Your task to perform on an android device: check data usage Image 0: 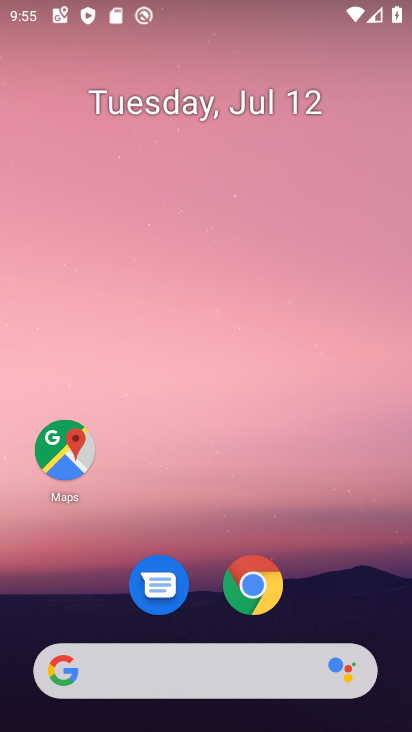
Step 0: drag from (202, 642) to (309, 7)
Your task to perform on an android device: check data usage Image 1: 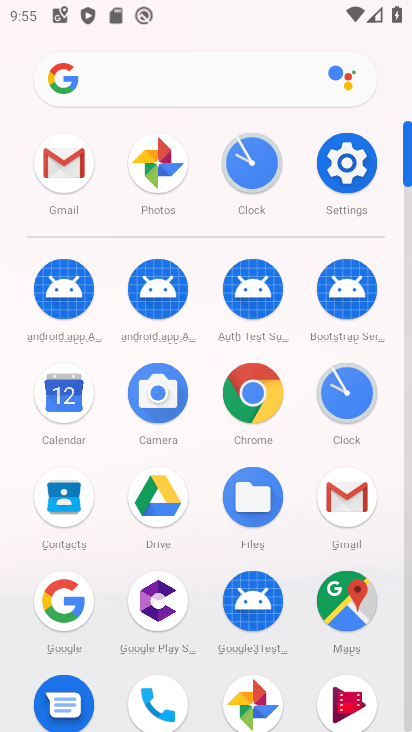
Step 1: click (348, 164)
Your task to perform on an android device: check data usage Image 2: 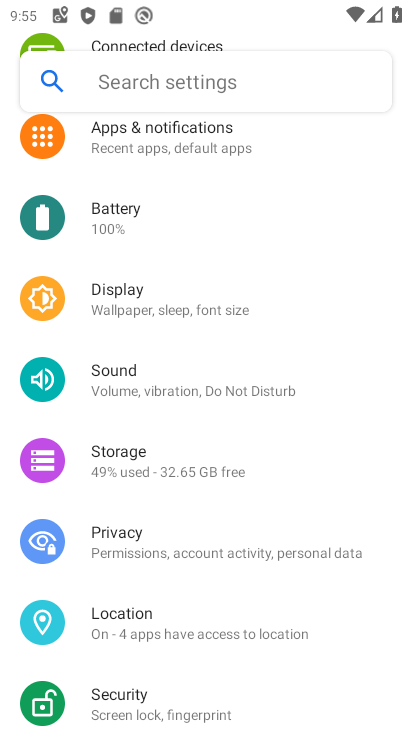
Step 2: drag from (333, 181) to (197, 648)
Your task to perform on an android device: check data usage Image 3: 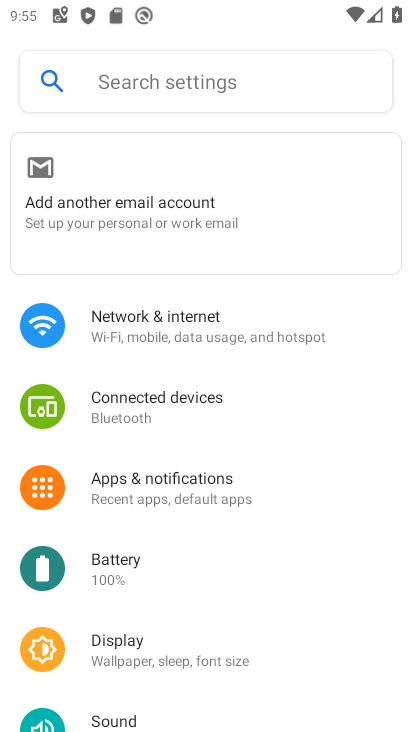
Step 3: click (192, 328)
Your task to perform on an android device: check data usage Image 4: 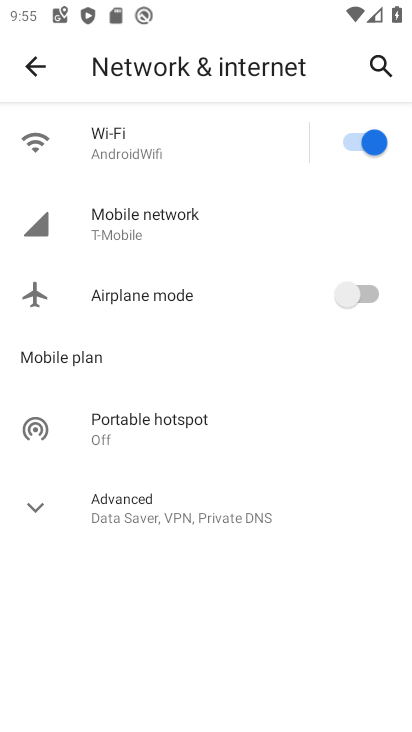
Step 4: click (158, 149)
Your task to perform on an android device: check data usage Image 5: 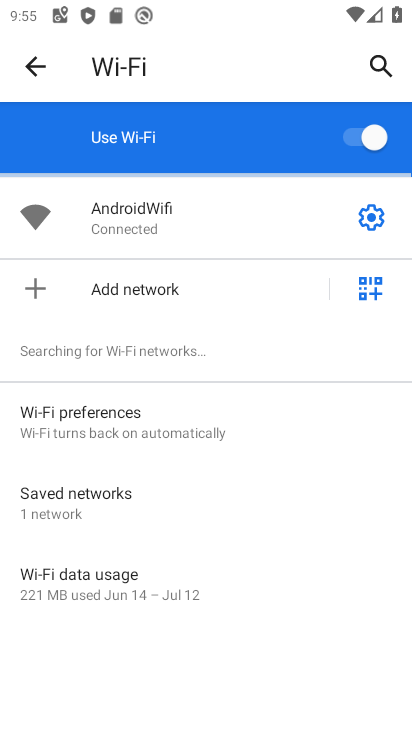
Step 5: click (128, 580)
Your task to perform on an android device: check data usage Image 6: 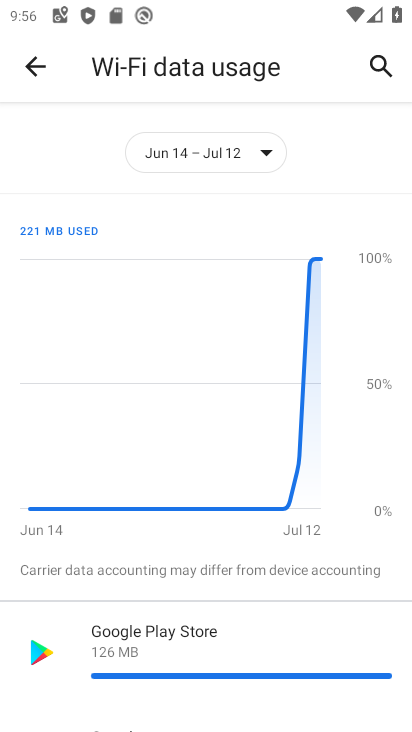
Step 6: task complete